Your task to perform on an android device: What's the weather going to be this weekend? Image 0: 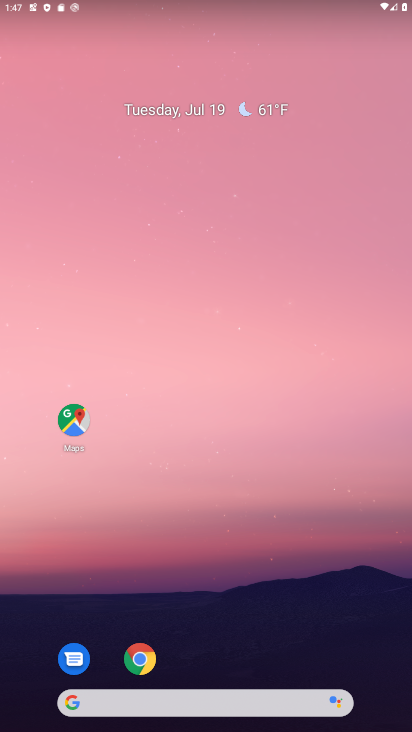
Step 0: click (265, 110)
Your task to perform on an android device: What's the weather going to be this weekend? Image 1: 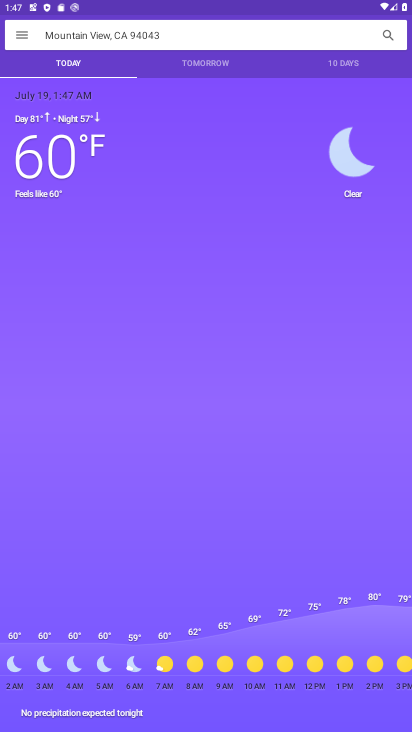
Step 1: click (334, 69)
Your task to perform on an android device: What's the weather going to be this weekend? Image 2: 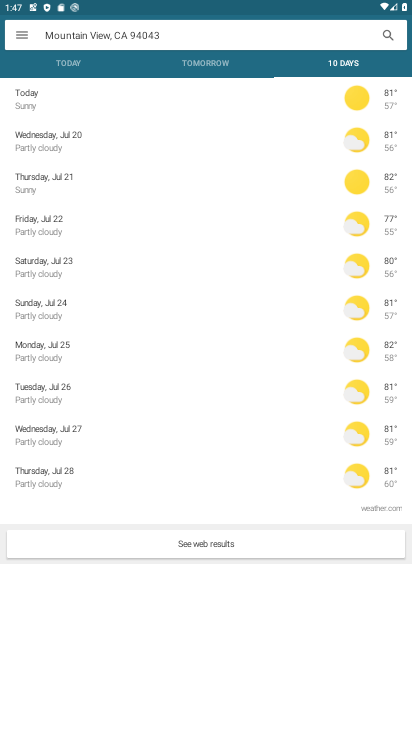
Step 2: click (32, 307)
Your task to perform on an android device: What's the weather going to be this weekend? Image 3: 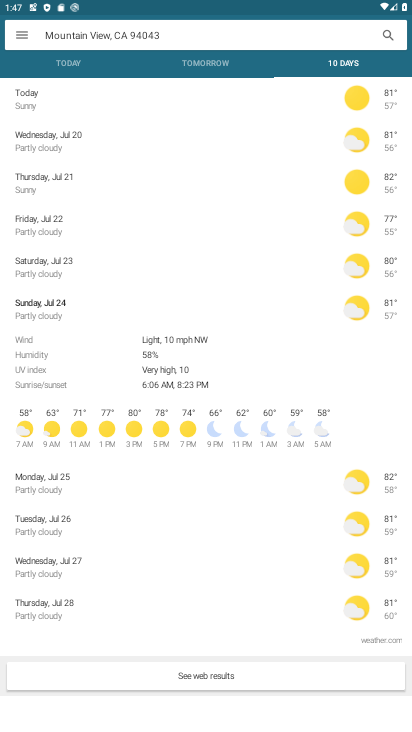
Step 3: task complete